Your task to perform on an android device: Open Google Chrome Image 0: 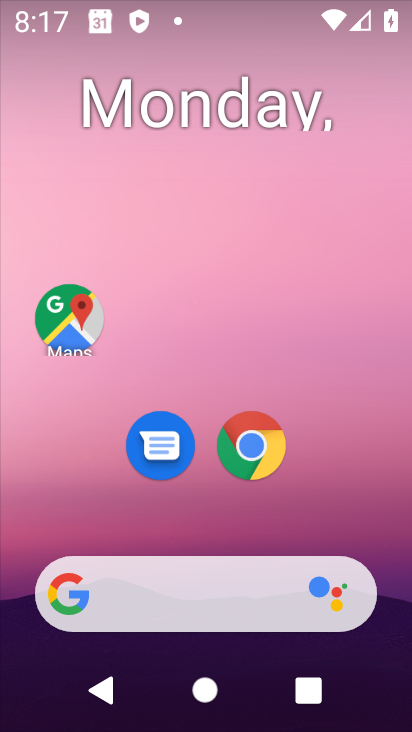
Step 0: click (399, 423)
Your task to perform on an android device: Open Google Chrome Image 1: 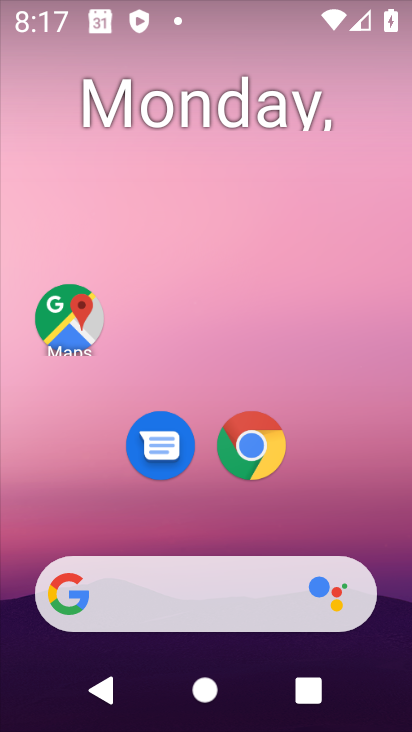
Step 1: click (250, 440)
Your task to perform on an android device: Open Google Chrome Image 2: 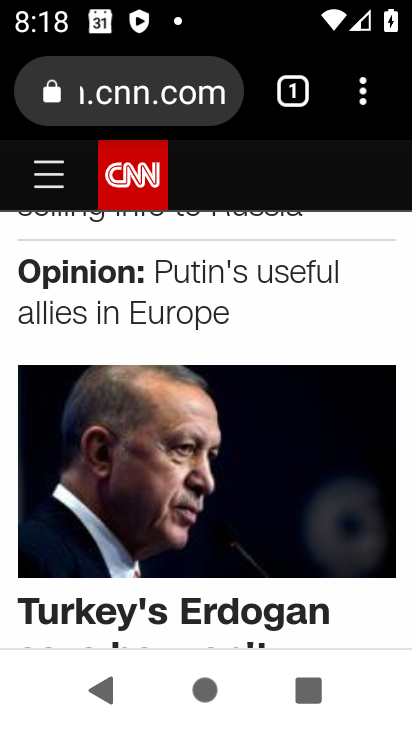
Step 2: task complete